Your task to perform on an android device: open wifi settings Image 0: 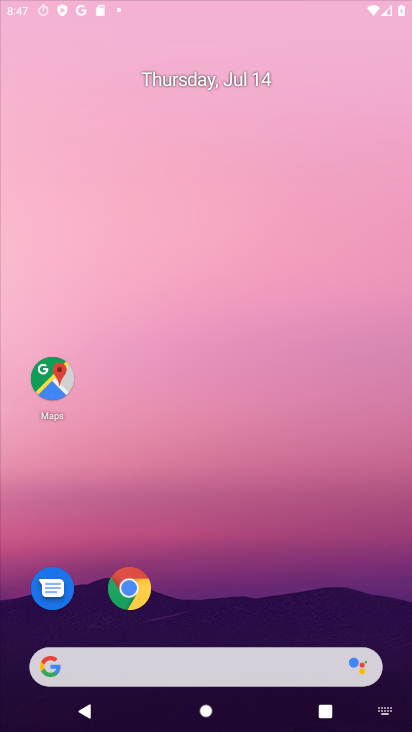
Step 0: drag from (244, 620) to (191, 172)
Your task to perform on an android device: open wifi settings Image 1: 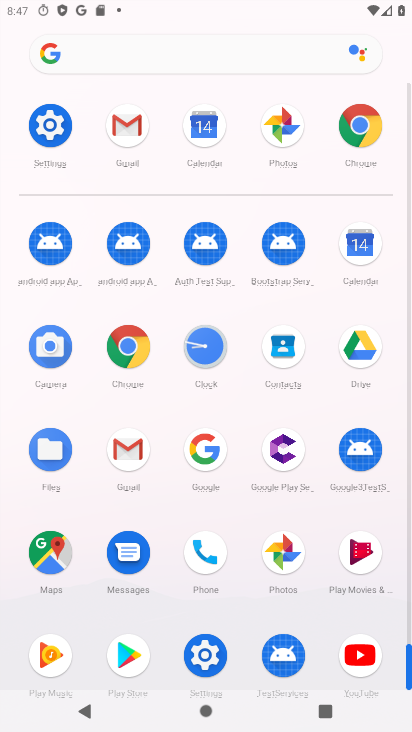
Step 1: click (196, 652)
Your task to perform on an android device: open wifi settings Image 2: 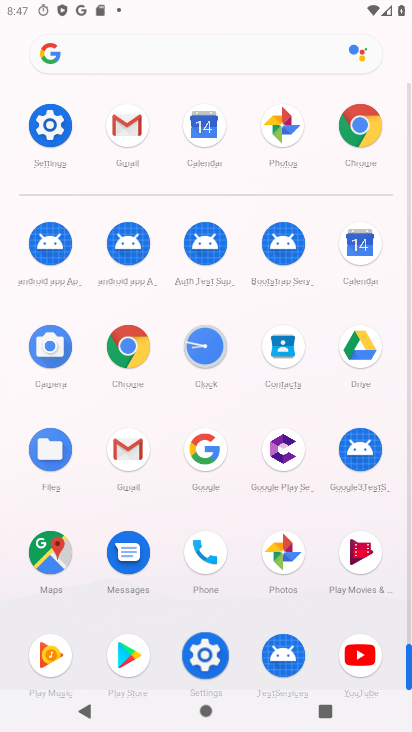
Step 2: click (206, 659)
Your task to perform on an android device: open wifi settings Image 3: 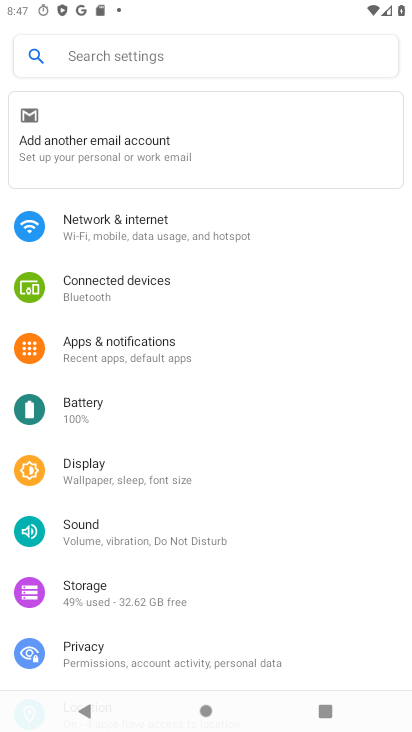
Step 3: click (97, 214)
Your task to perform on an android device: open wifi settings Image 4: 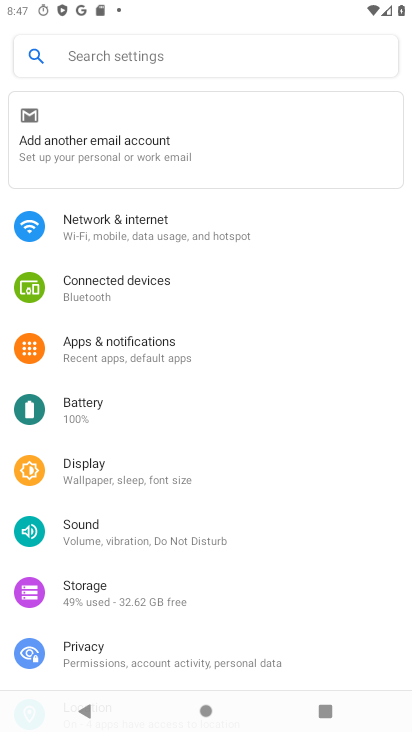
Step 4: click (100, 249)
Your task to perform on an android device: open wifi settings Image 5: 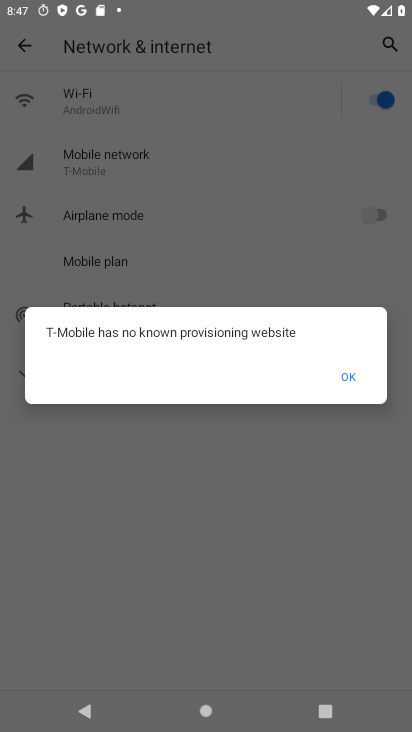
Step 5: click (341, 379)
Your task to perform on an android device: open wifi settings Image 6: 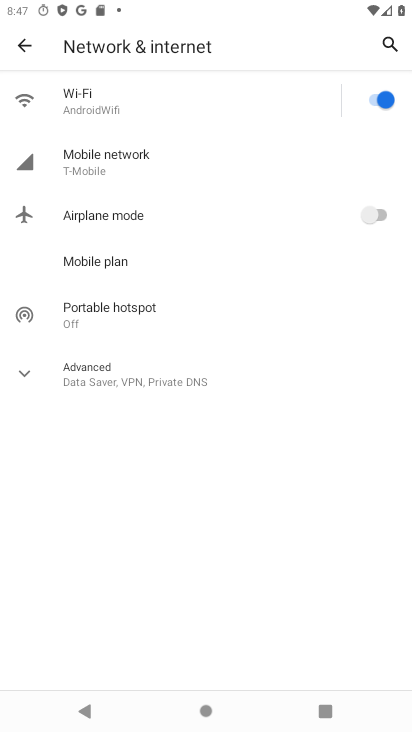
Step 6: click (61, 109)
Your task to perform on an android device: open wifi settings Image 7: 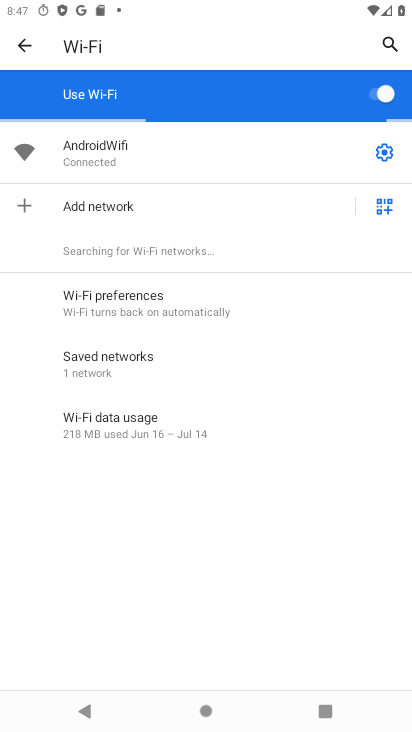
Step 7: task complete